Your task to perform on an android device: Search for vintage wall art on Etsy. Image 0: 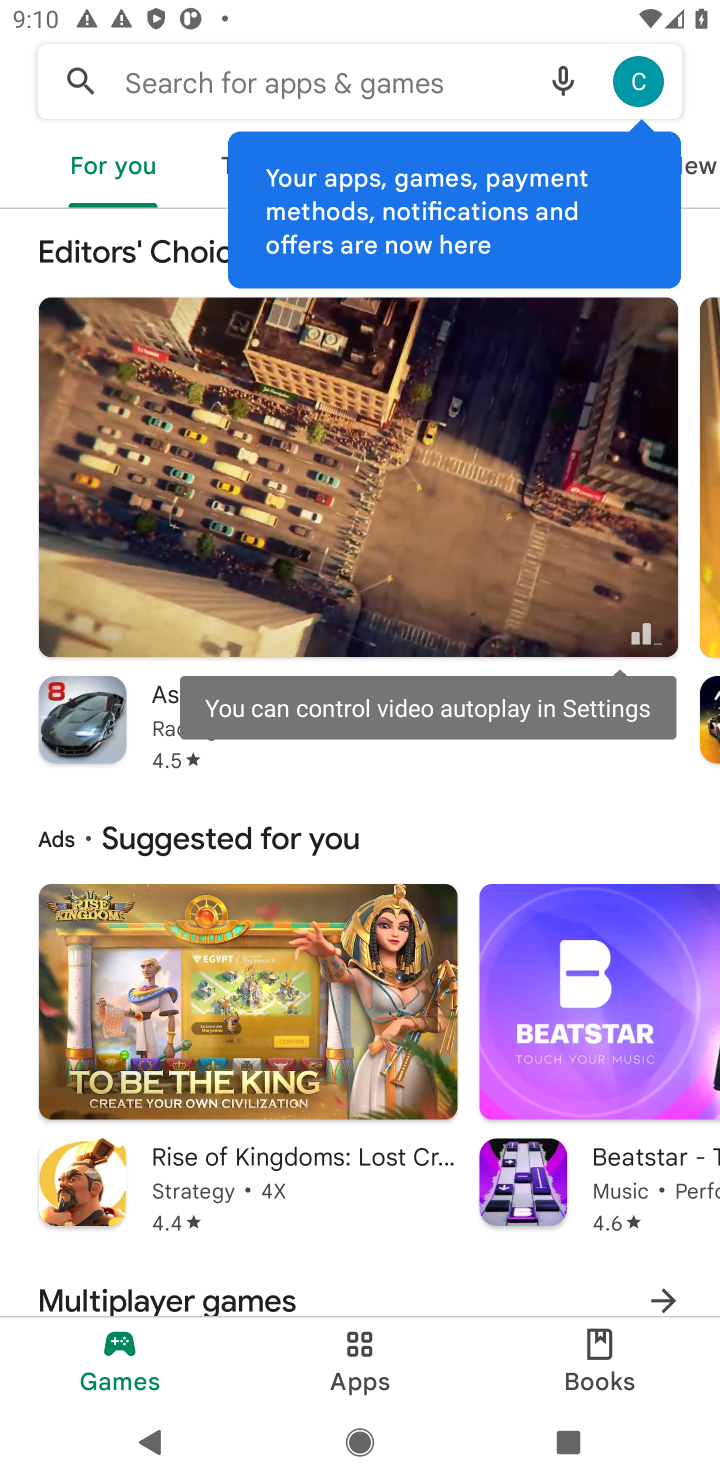
Step 0: press home button
Your task to perform on an android device: Search for vintage wall art on Etsy. Image 1: 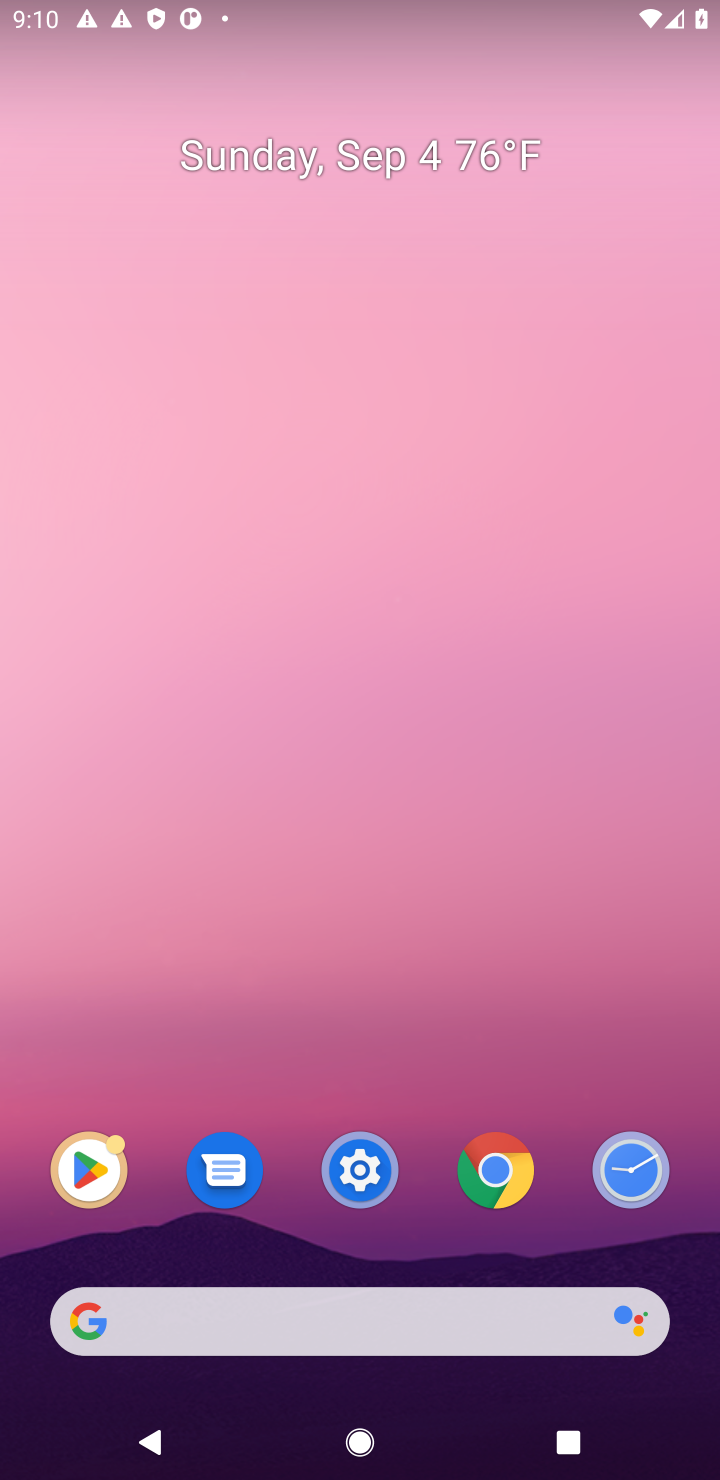
Step 1: click (375, 1355)
Your task to perform on an android device: Search for vintage wall art on Etsy. Image 2: 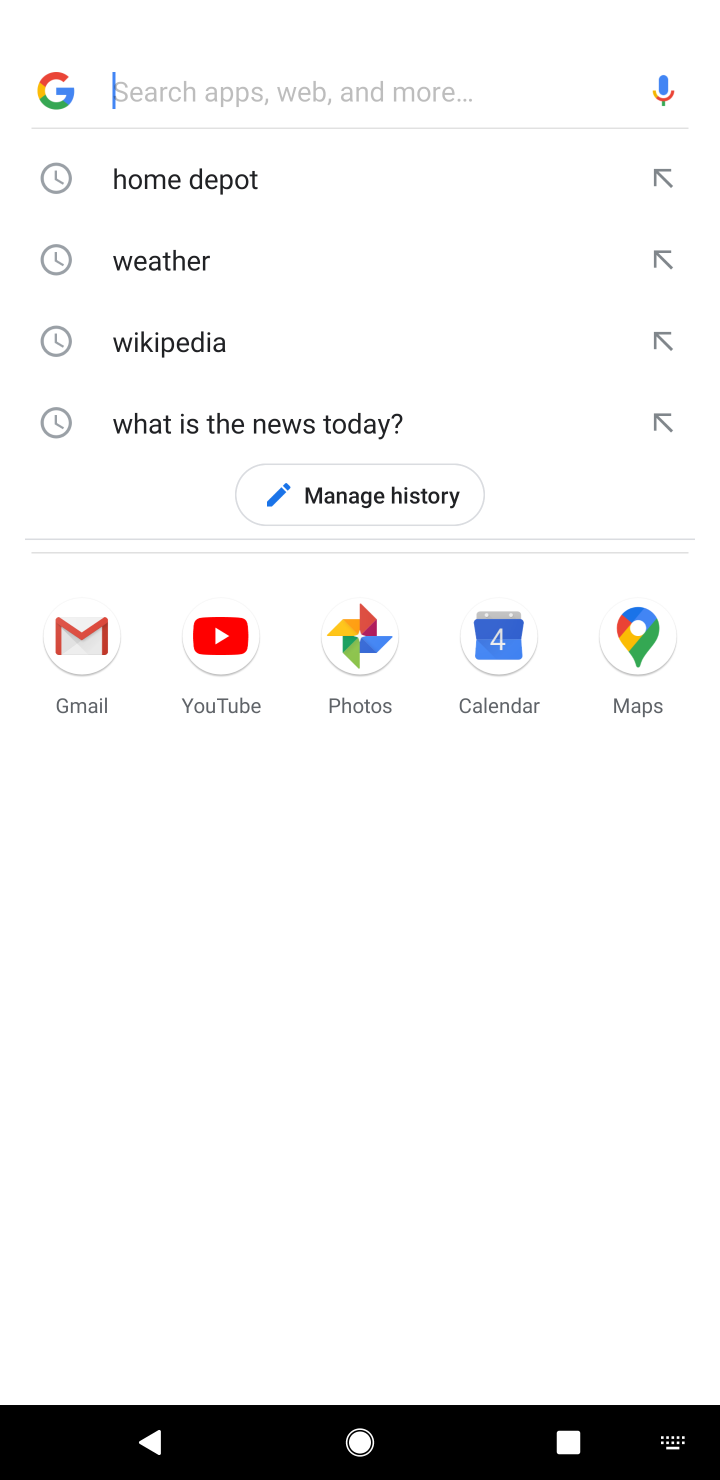
Step 2: type "Etsy"
Your task to perform on an android device: Search for vintage wall art on Etsy. Image 3: 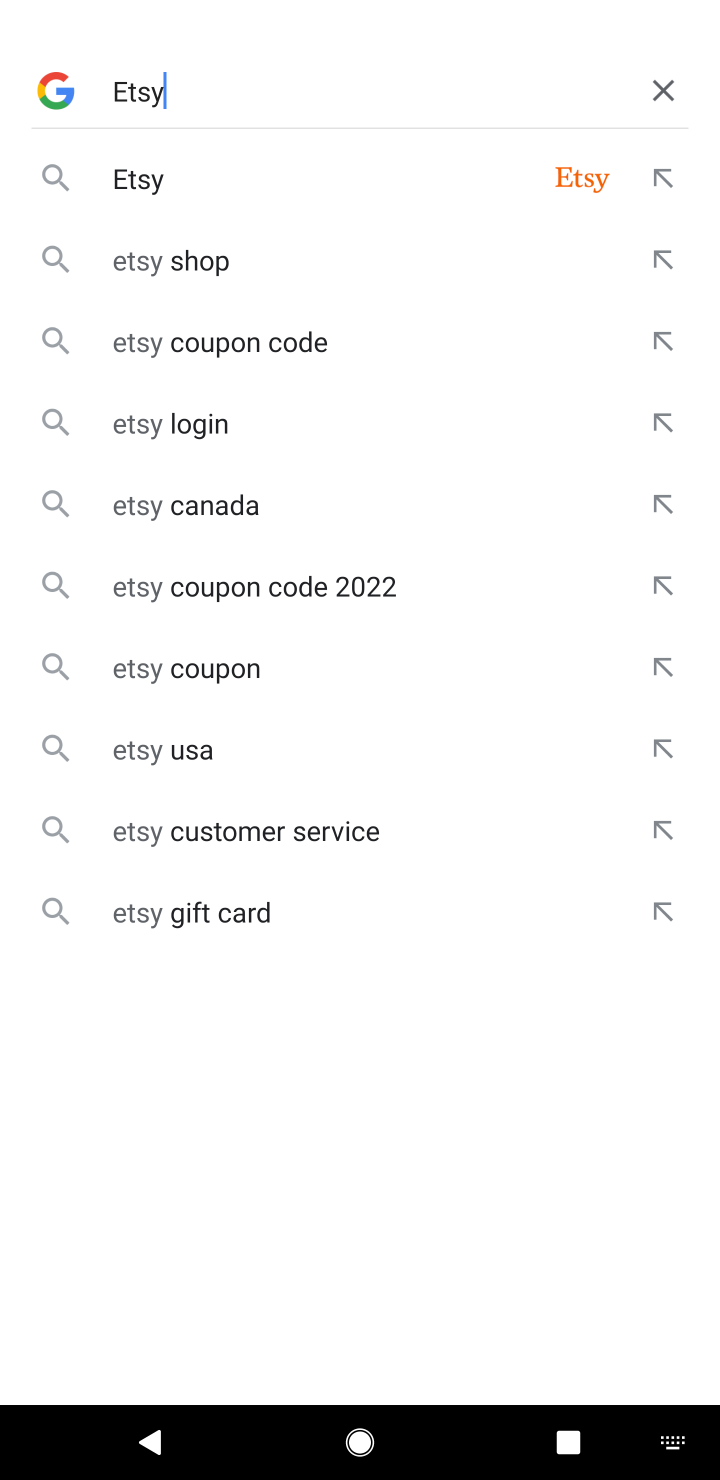
Step 3: click (267, 191)
Your task to perform on an android device: Search for vintage wall art on Etsy. Image 4: 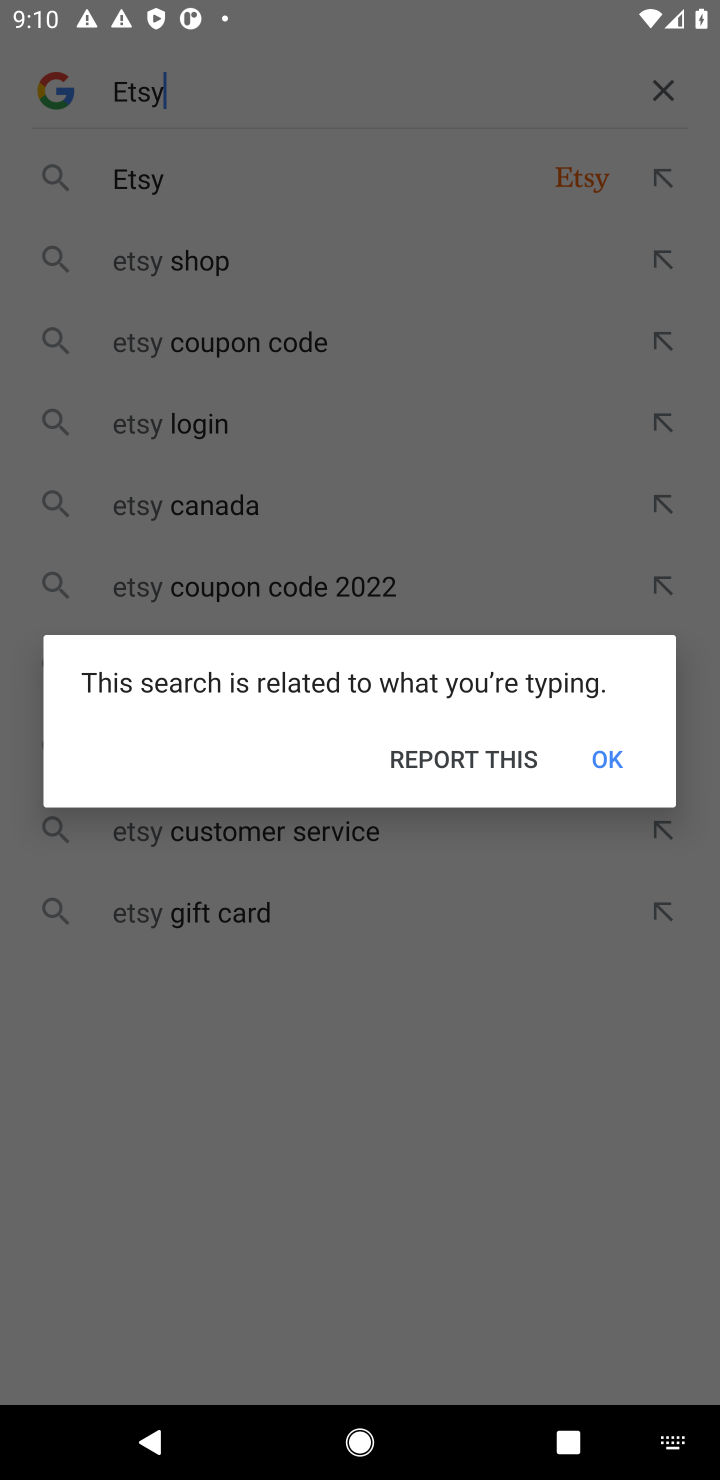
Step 4: click (624, 753)
Your task to perform on an android device: Search for vintage wall art on Etsy. Image 5: 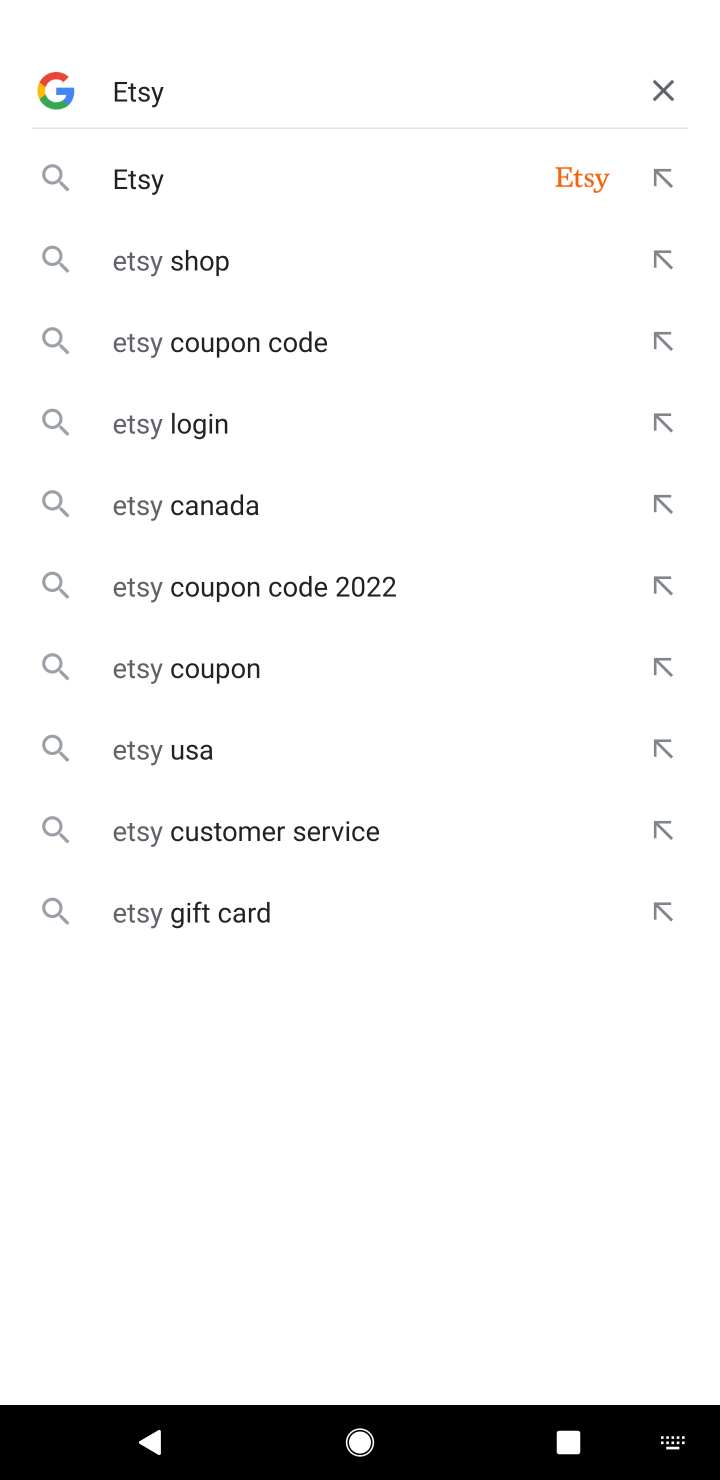
Step 5: click (168, 179)
Your task to perform on an android device: Search for vintage wall art on Etsy. Image 6: 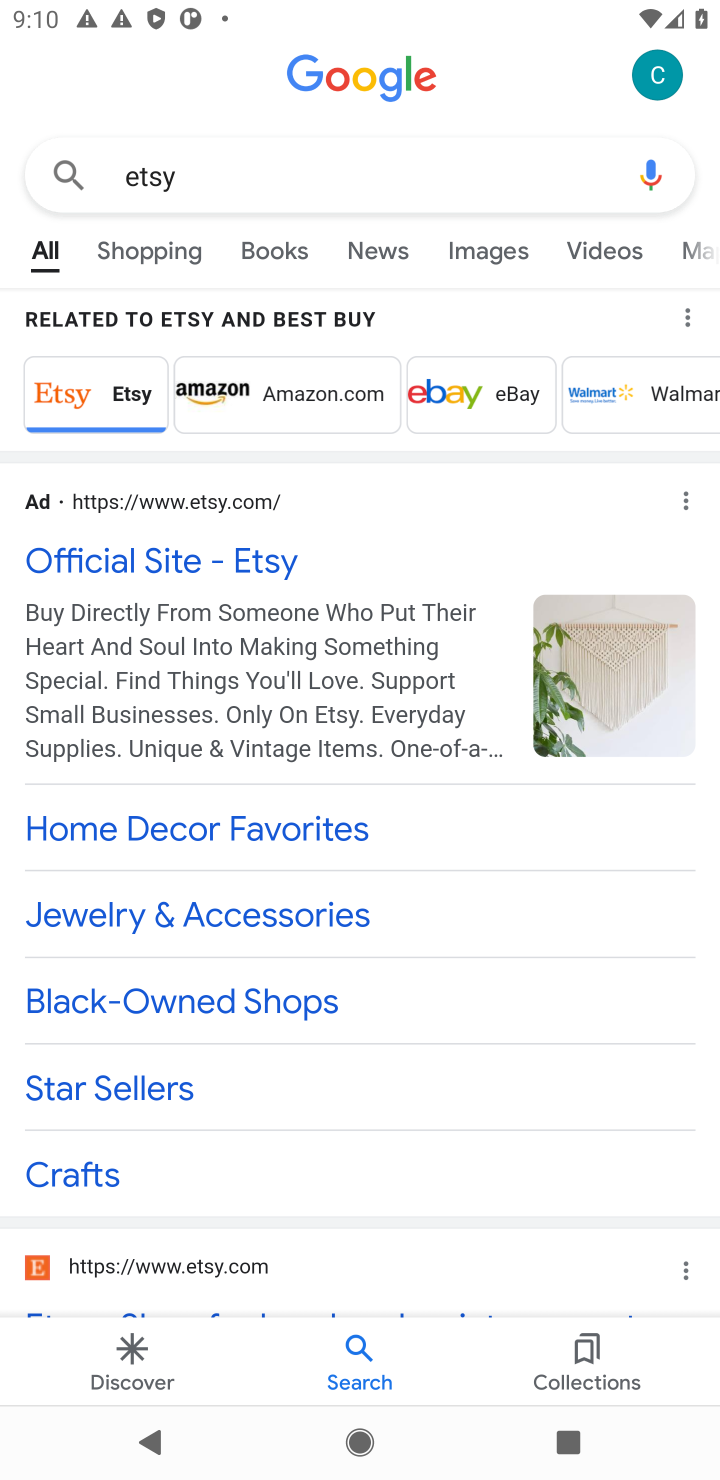
Step 6: drag from (312, 1239) to (333, 661)
Your task to perform on an android device: Search for vintage wall art on Etsy. Image 7: 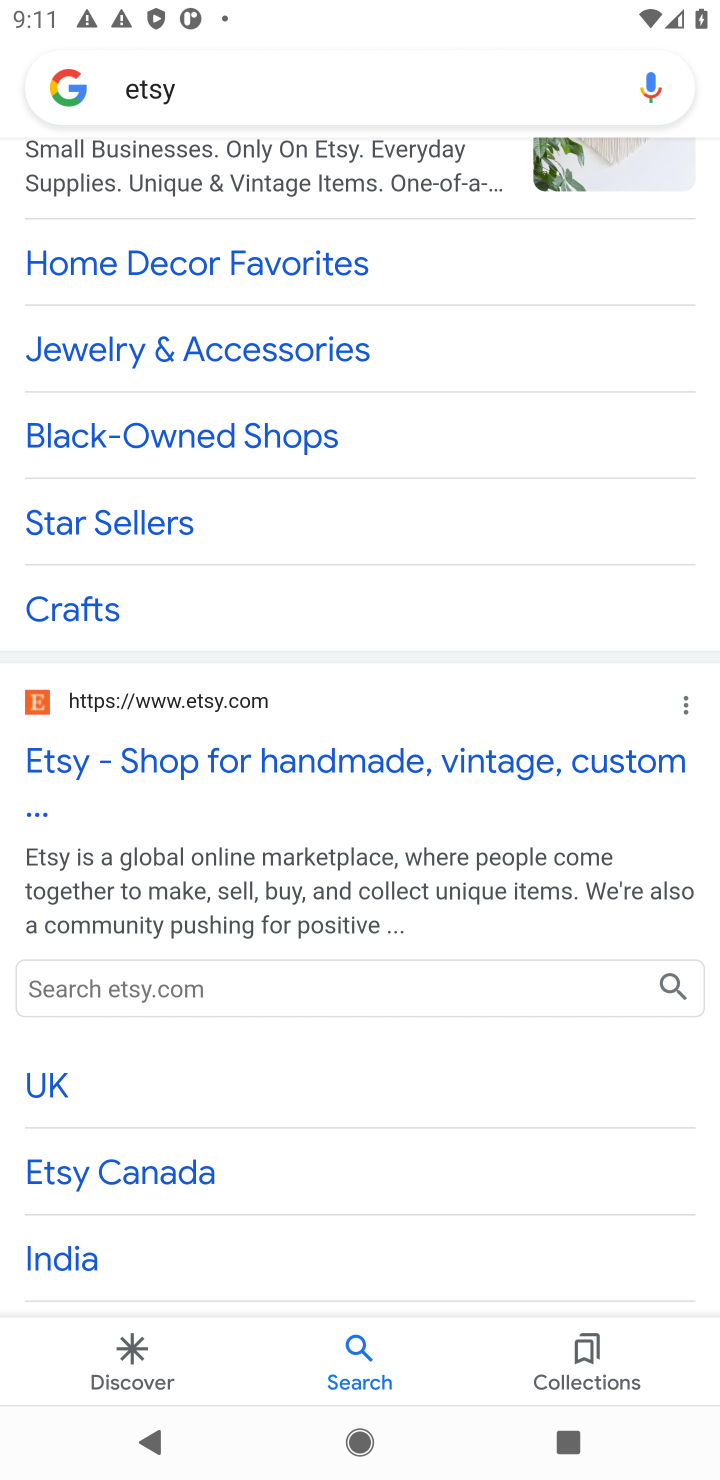
Step 7: click (226, 745)
Your task to perform on an android device: Search for vintage wall art on Etsy. Image 8: 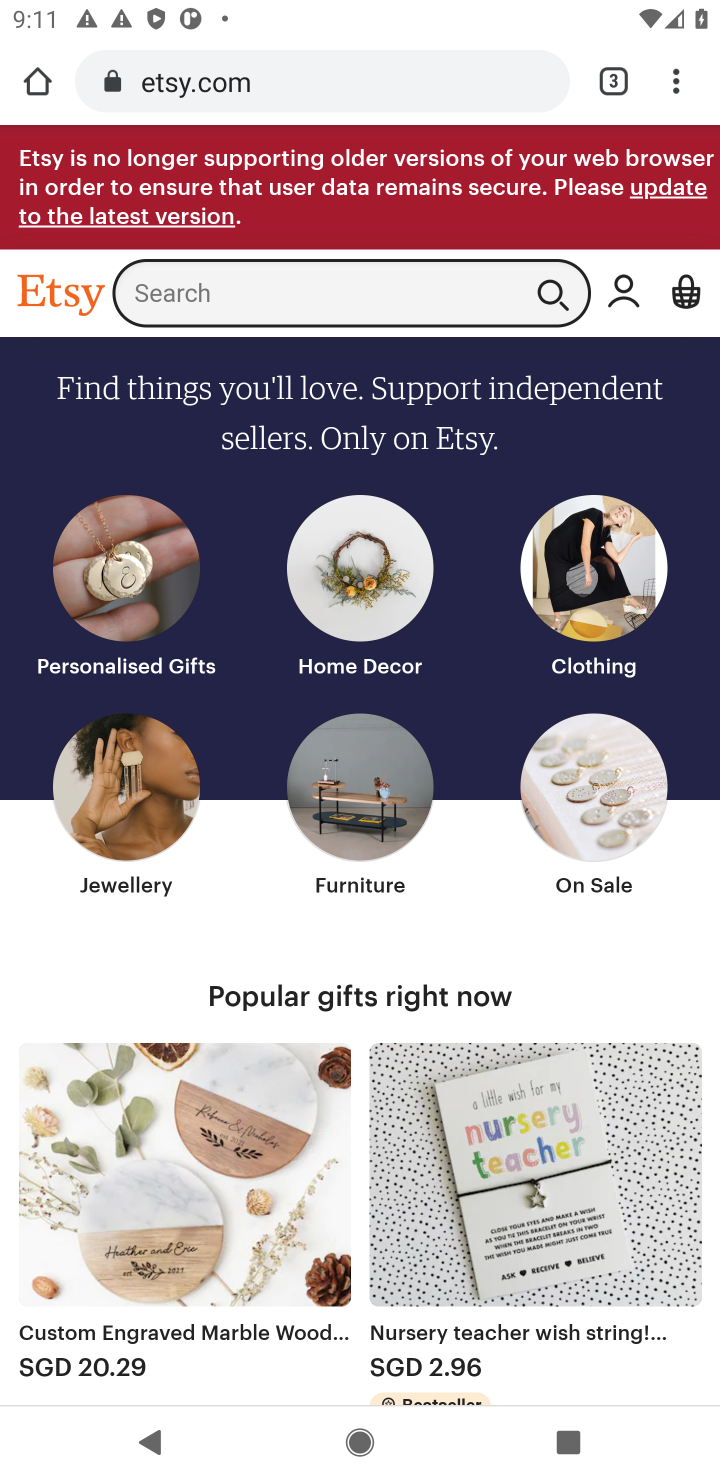
Step 8: click (371, 315)
Your task to perform on an android device: Search for vintage wall art on Etsy. Image 9: 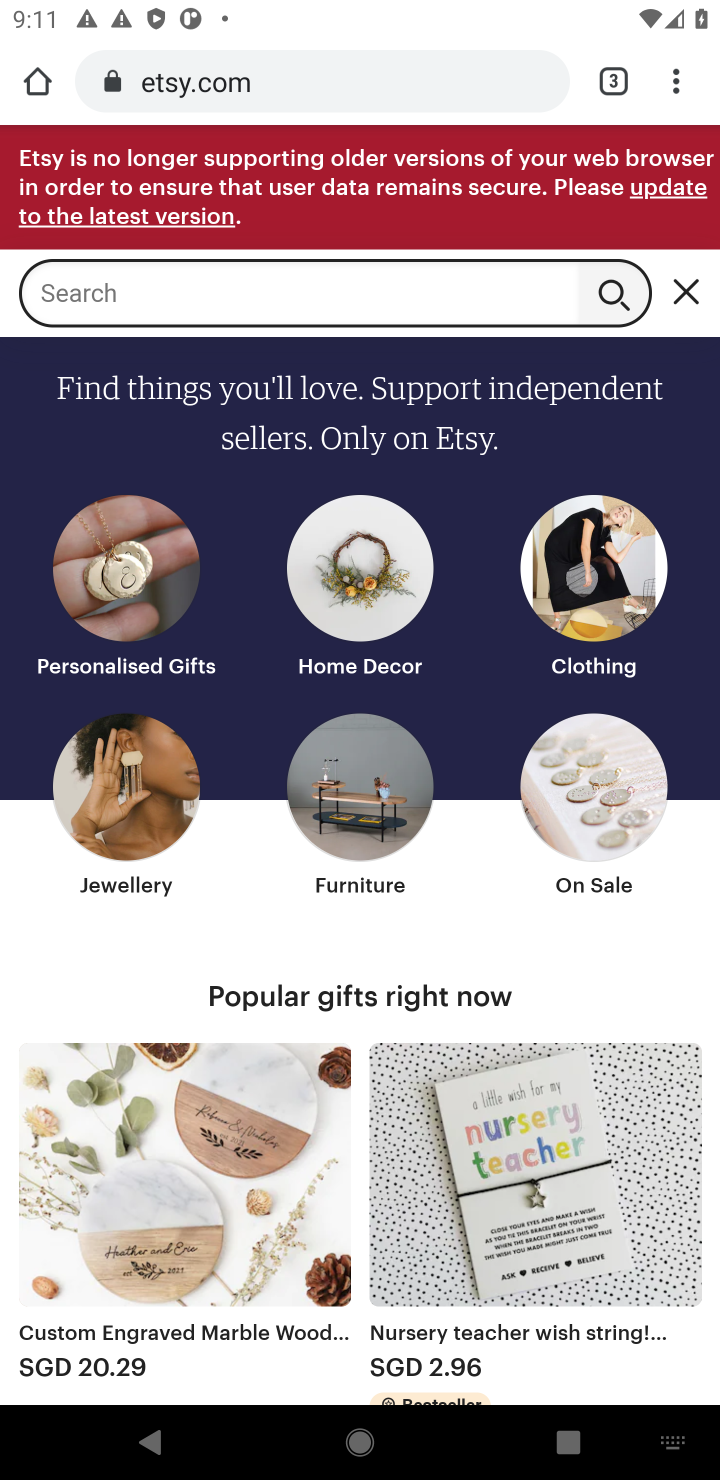
Step 9: type "vintage wall art"
Your task to perform on an android device: Search for vintage wall art on Etsy. Image 10: 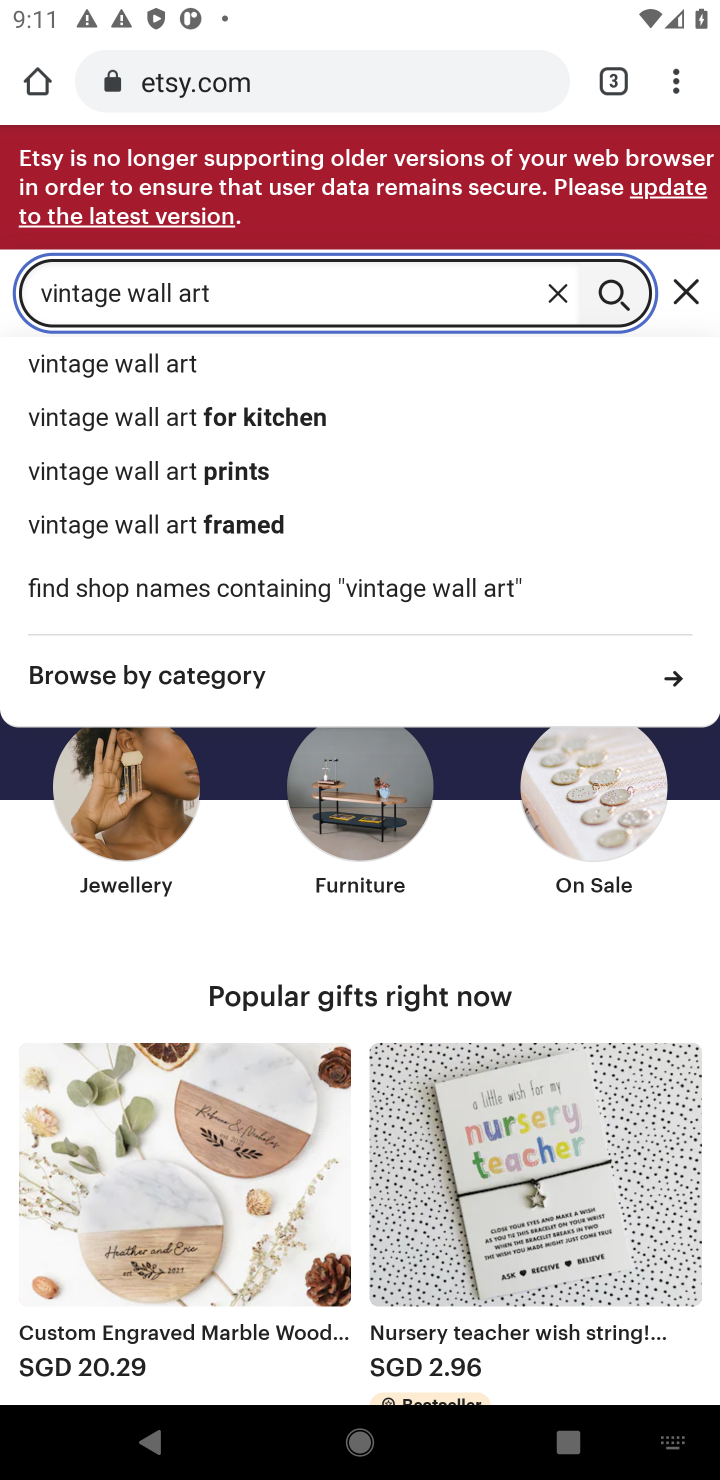
Step 10: click (88, 355)
Your task to perform on an android device: Search for vintage wall art on Etsy. Image 11: 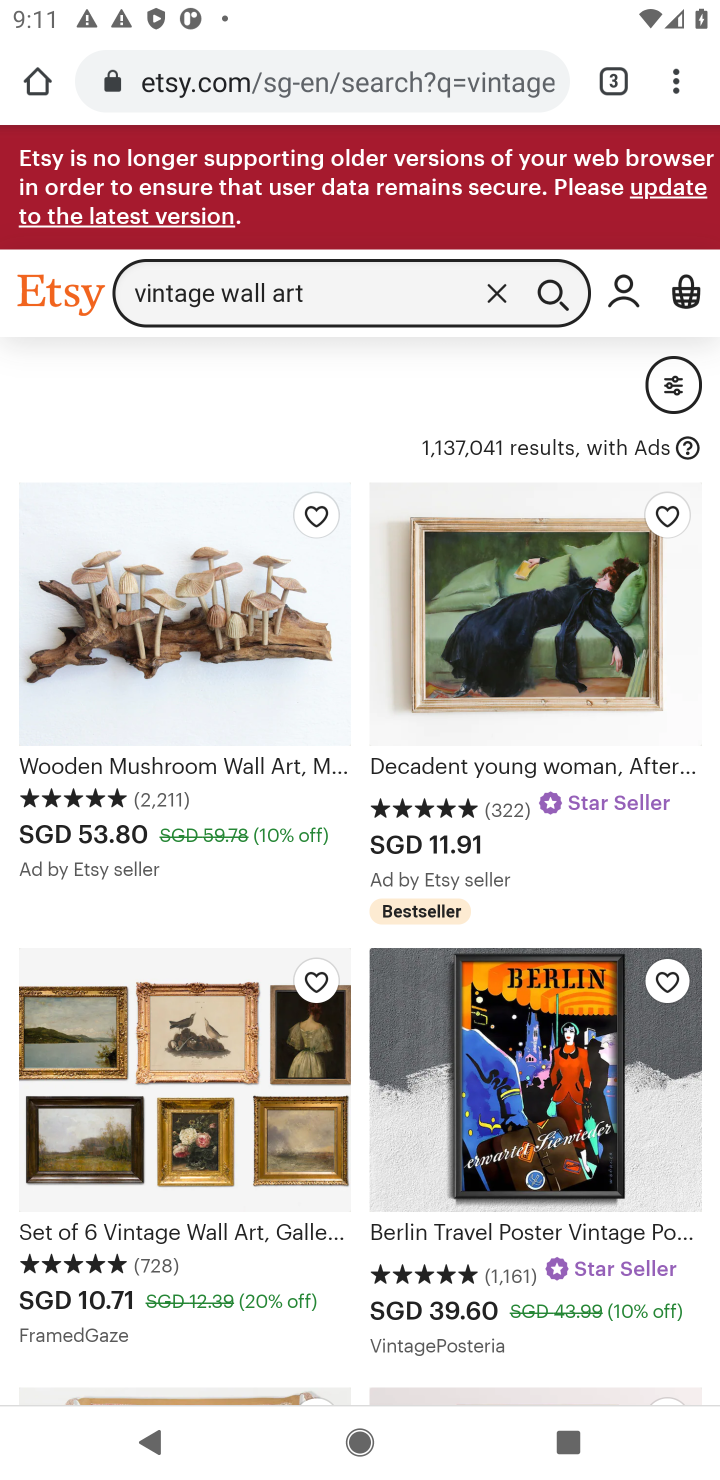
Step 11: click (403, 512)
Your task to perform on an android device: Search for vintage wall art on Etsy. Image 12: 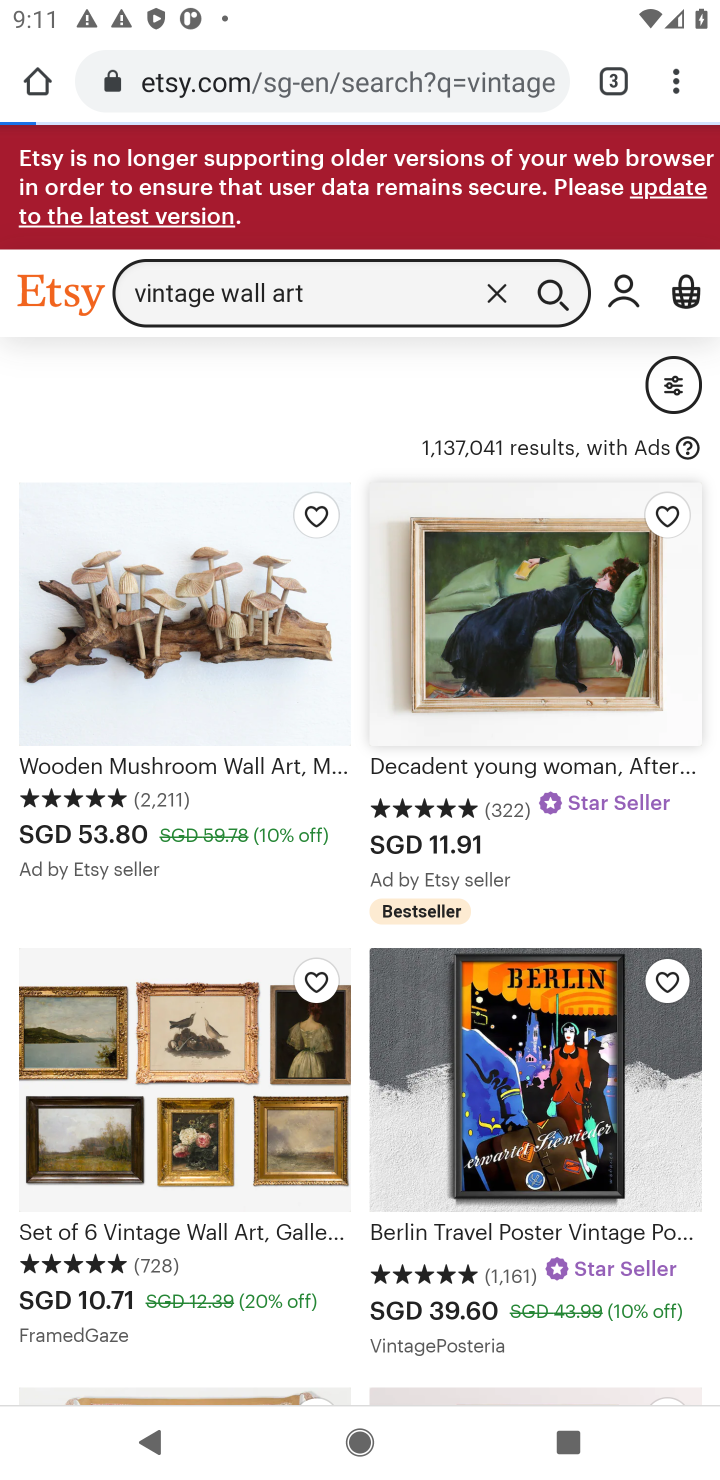
Step 12: drag from (341, 952) to (425, 331)
Your task to perform on an android device: Search for vintage wall art on Etsy. Image 13: 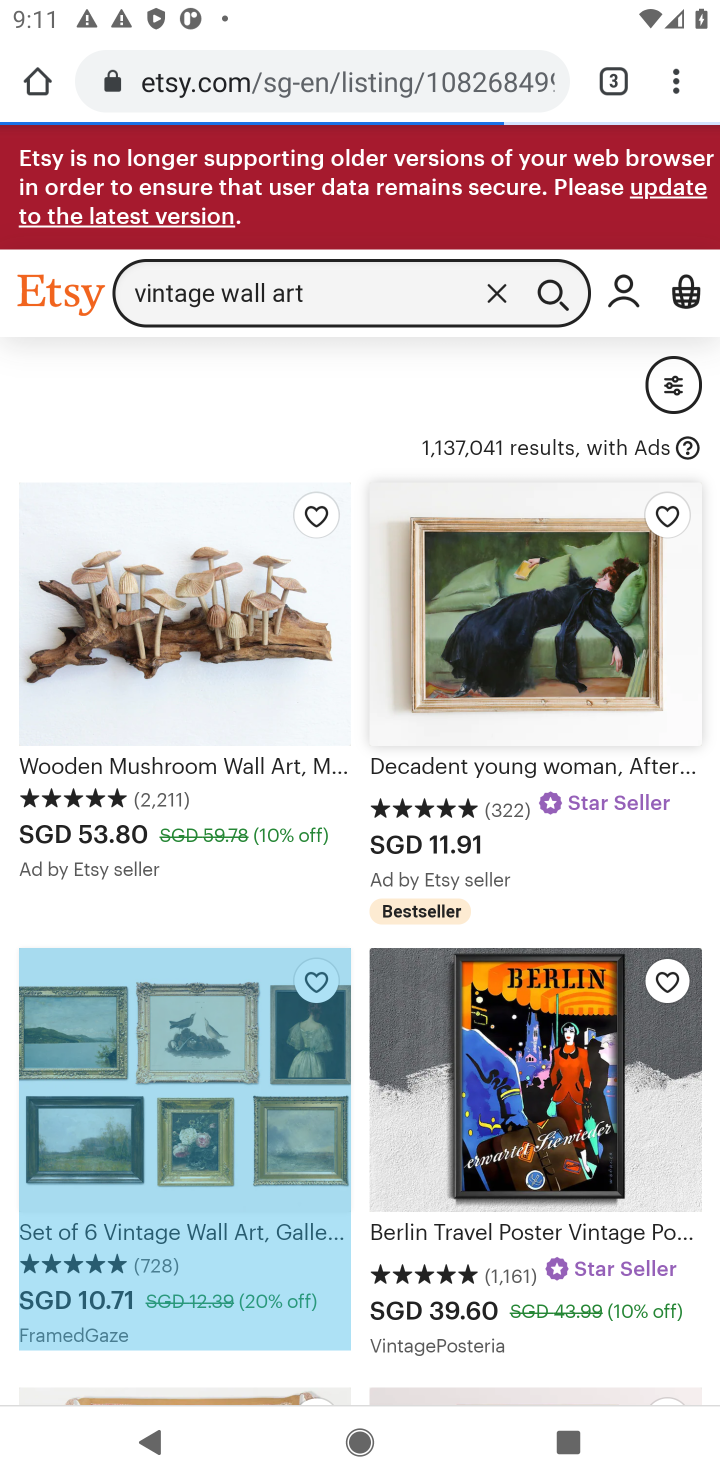
Step 13: drag from (323, 1266) to (447, 677)
Your task to perform on an android device: Search for vintage wall art on Etsy. Image 14: 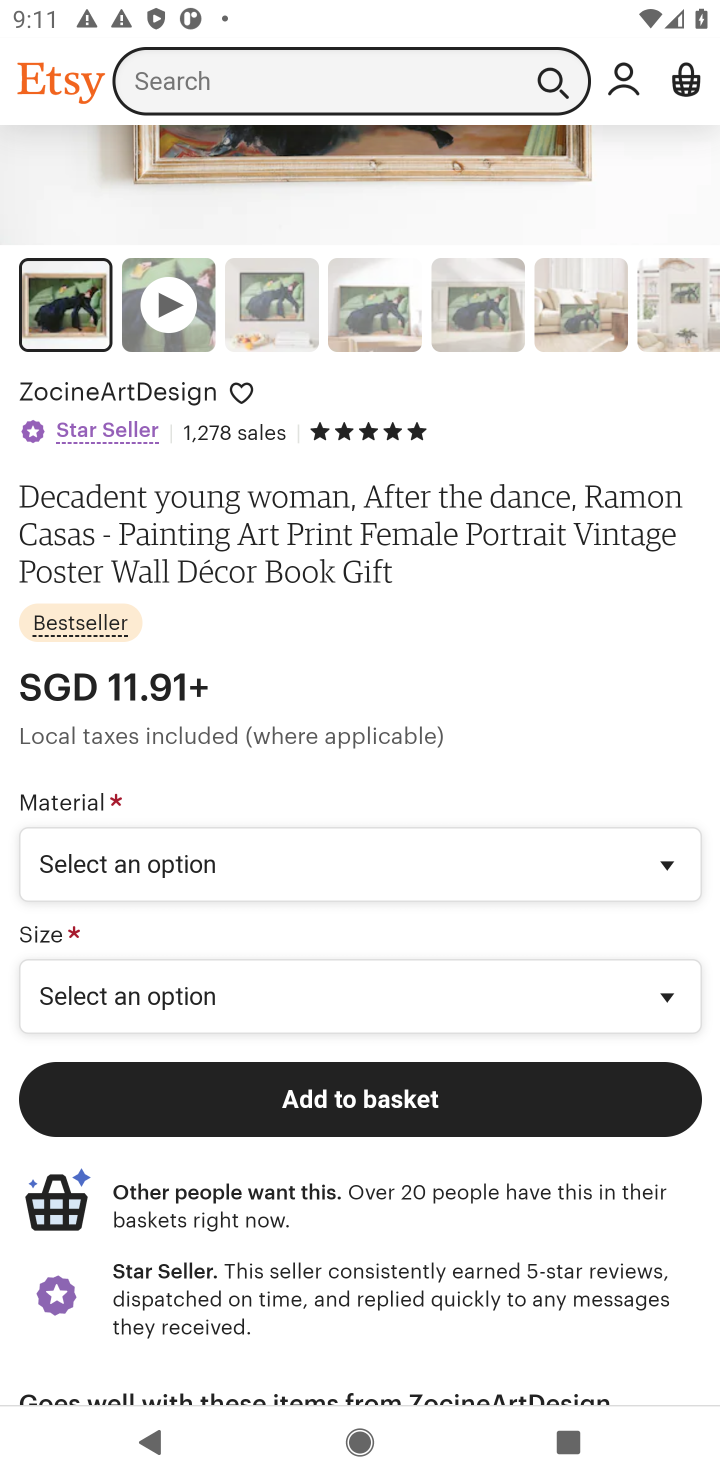
Step 14: click (514, 1183)
Your task to perform on an android device: Search for vintage wall art on Etsy. Image 15: 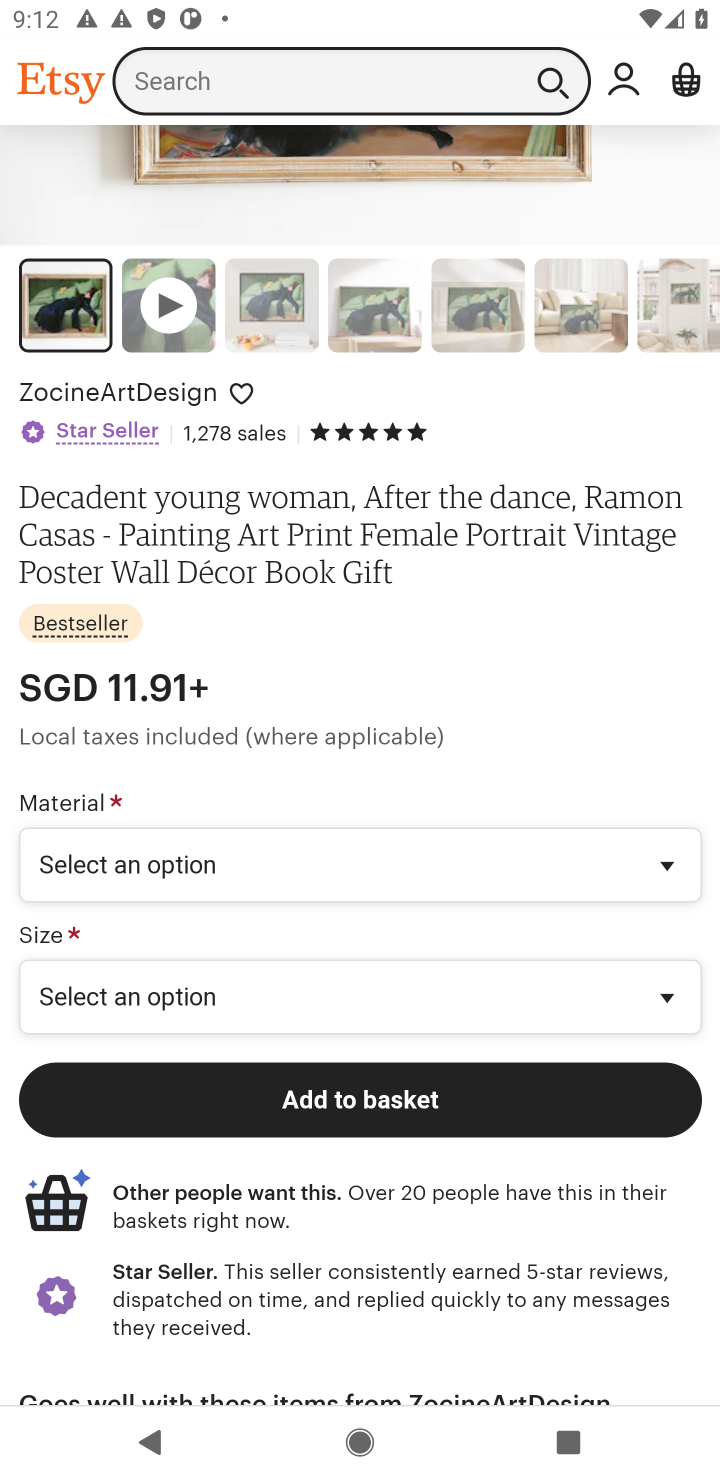
Step 15: click (522, 928)
Your task to perform on an android device: Search for vintage wall art on Etsy. Image 16: 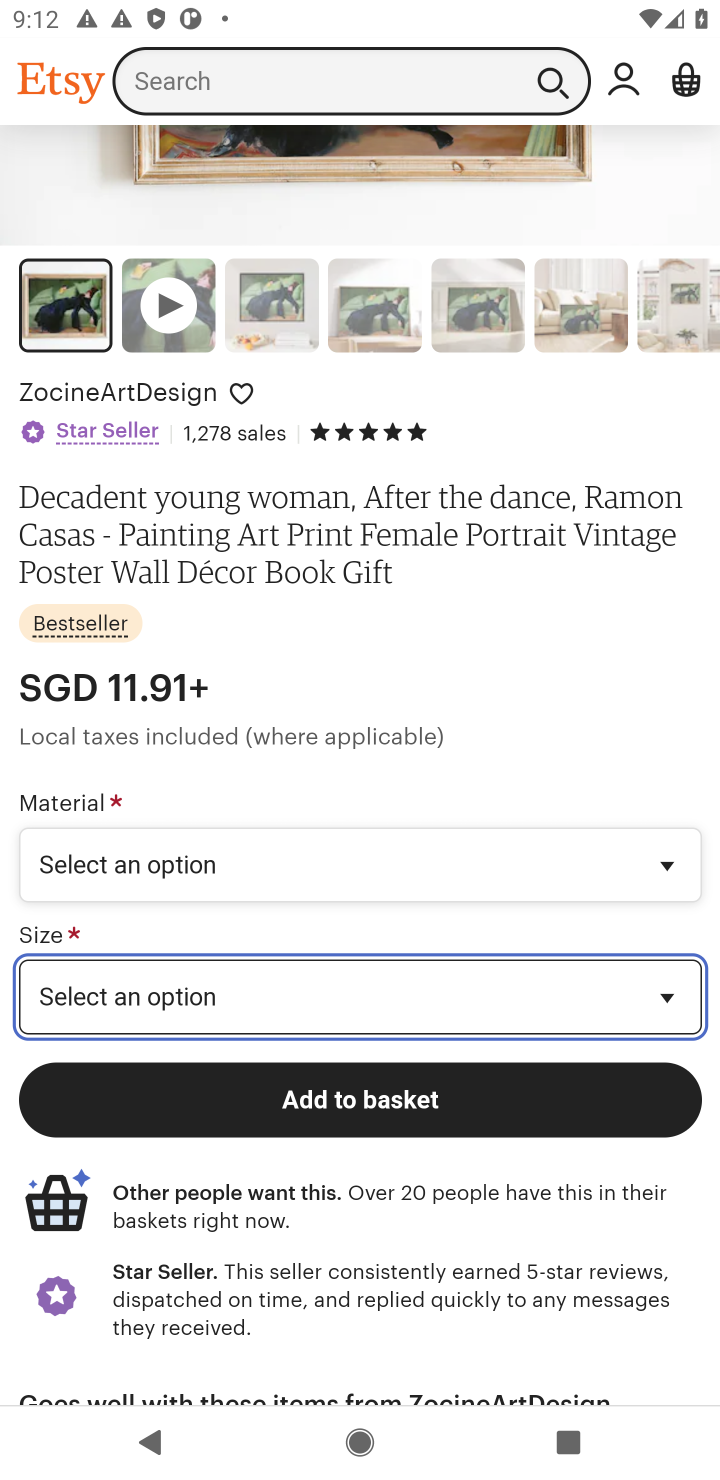
Step 16: click (552, 917)
Your task to perform on an android device: Search for vintage wall art on Etsy. Image 17: 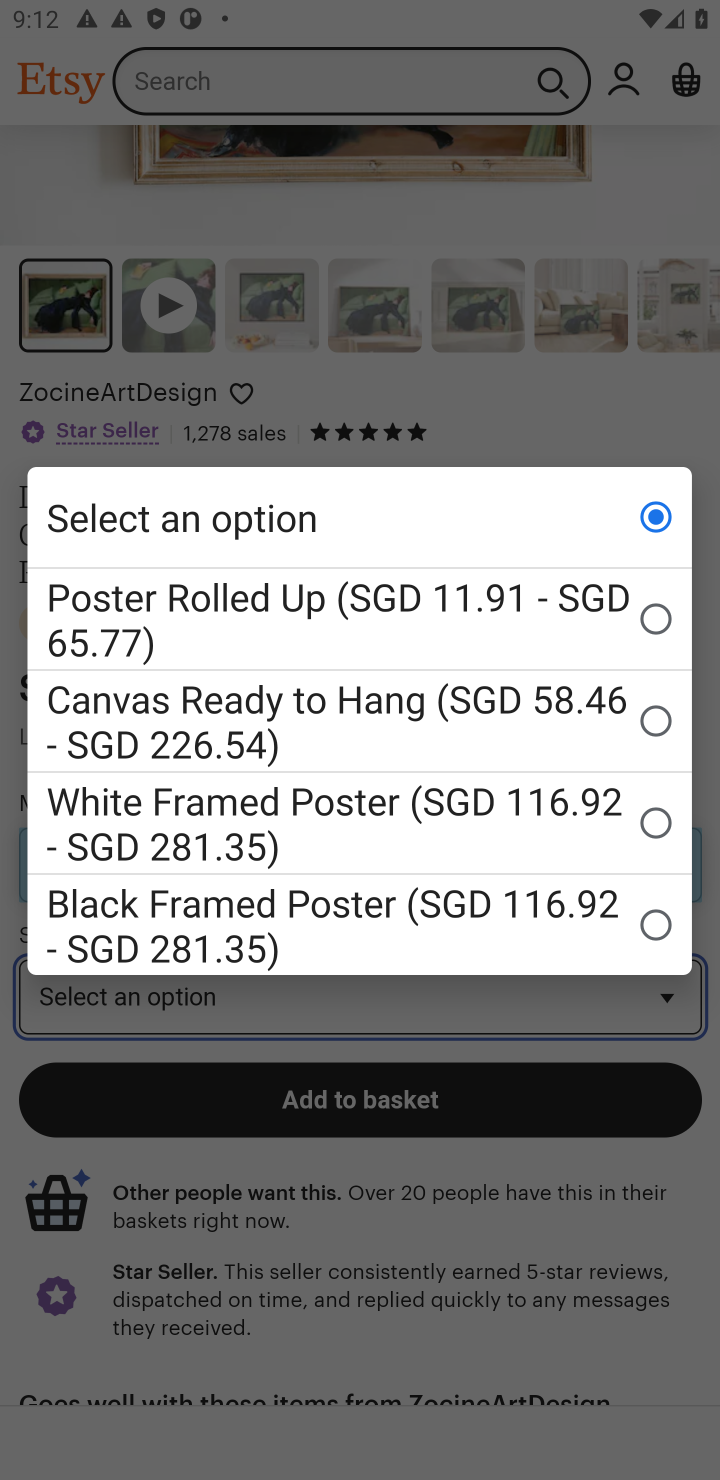
Step 17: task complete